Your task to perform on an android device: Go to internet settings Image 0: 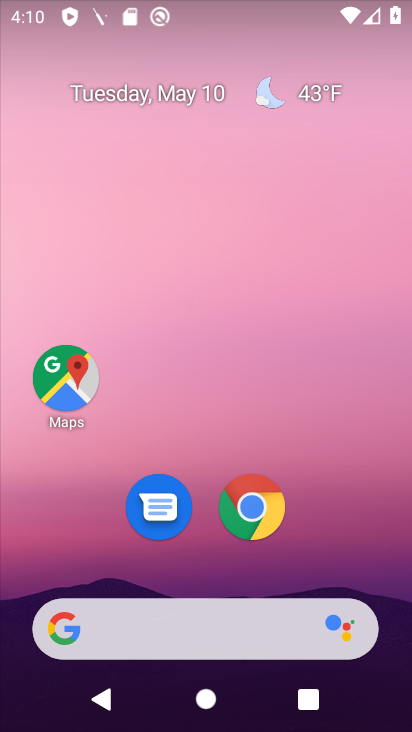
Step 0: drag from (222, 599) to (399, 85)
Your task to perform on an android device: Go to internet settings Image 1: 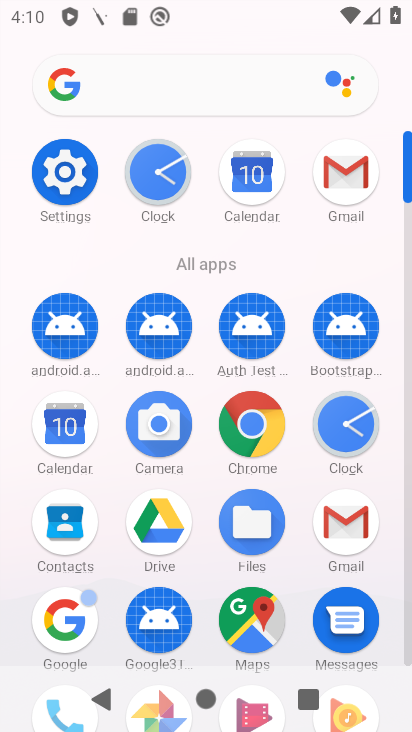
Step 1: click (52, 188)
Your task to perform on an android device: Go to internet settings Image 2: 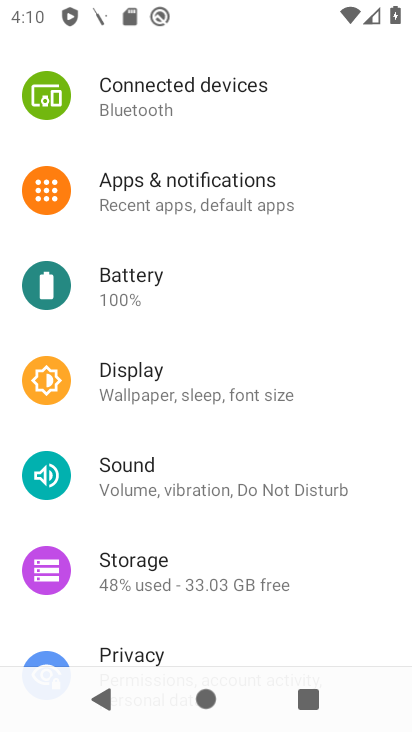
Step 2: drag from (208, 145) to (114, 494)
Your task to perform on an android device: Go to internet settings Image 3: 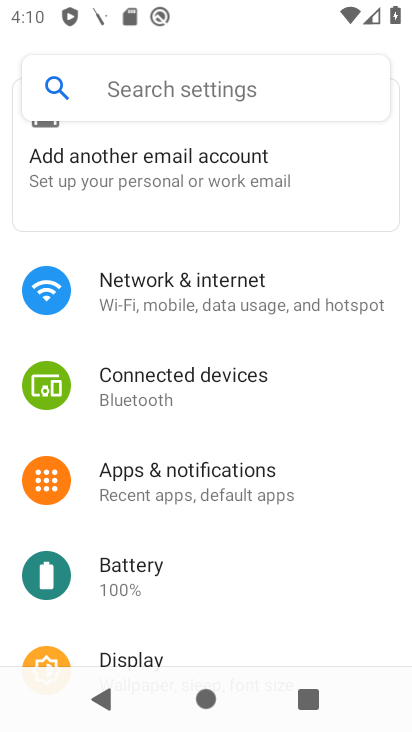
Step 3: click (250, 292)
Your task to perform on an android device: Go to internet settings Image 4: 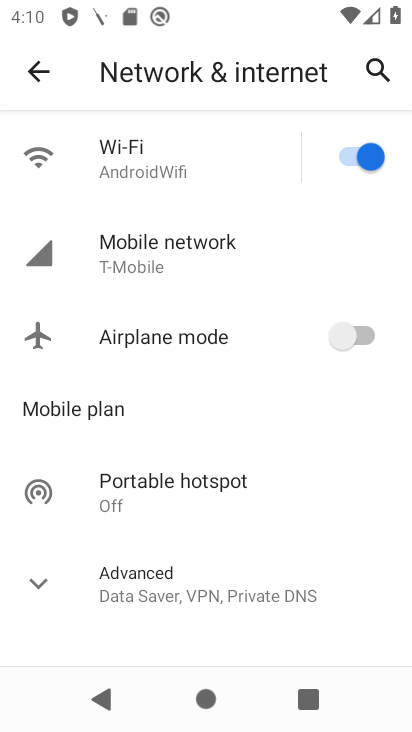
Step 4: click (32, 142)
Your task to perform on an android device: Go to internet settings Image 5: 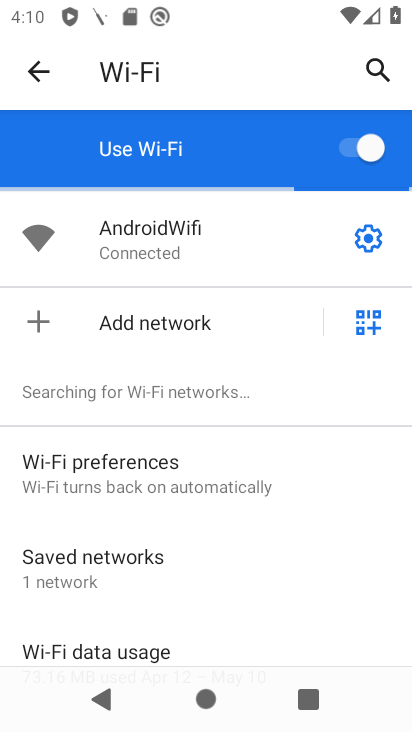
Step 5: task complete